Your task to perform on an android device: change notifications settings Image 0: 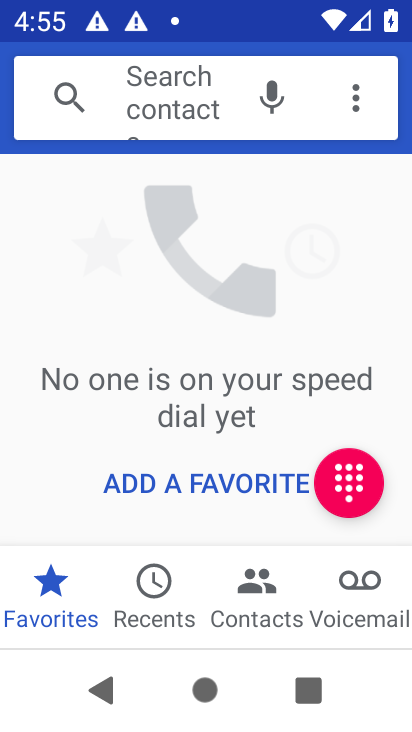
Step 0: press home button
Your task to perform on an android device: change notifications settings Image 1: 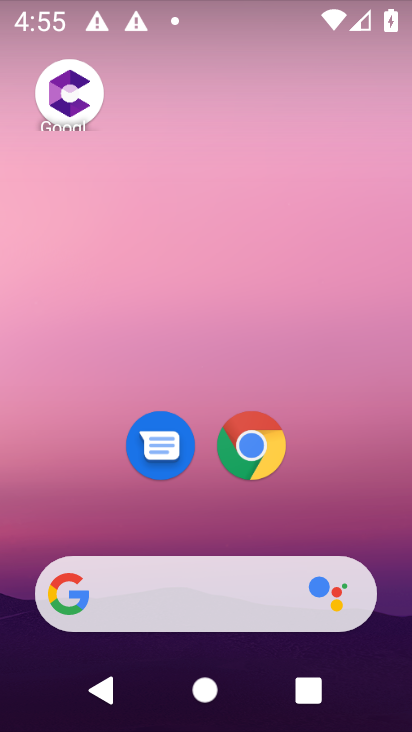
Step 1: drag from (208, 525) to (246, 86)
Your task to perform on an android device: change notifications settings Image 2: 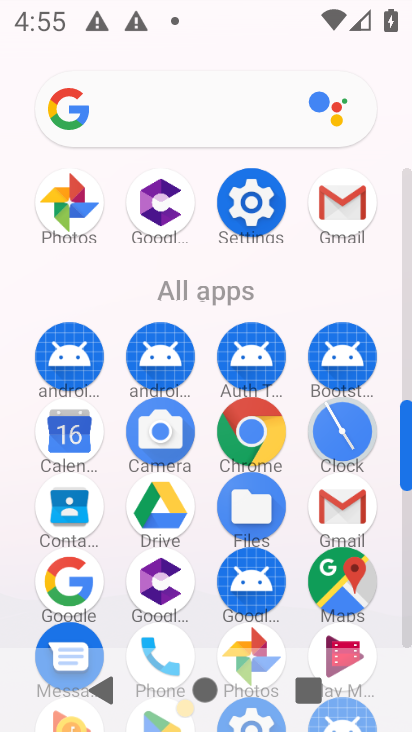
Step 2: click (247, 200)
Your task to perform on an android device: change notifications settings Image 3: 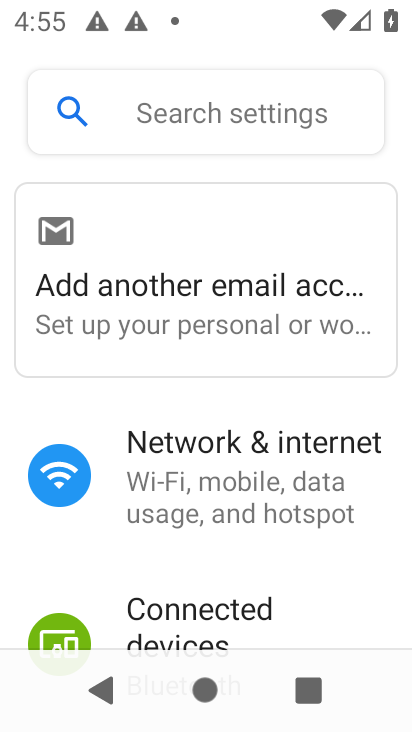
Step 3: drag from (292, 549) to (293, 79)
Your task to perform on an android device: change notifications settings Image 4: 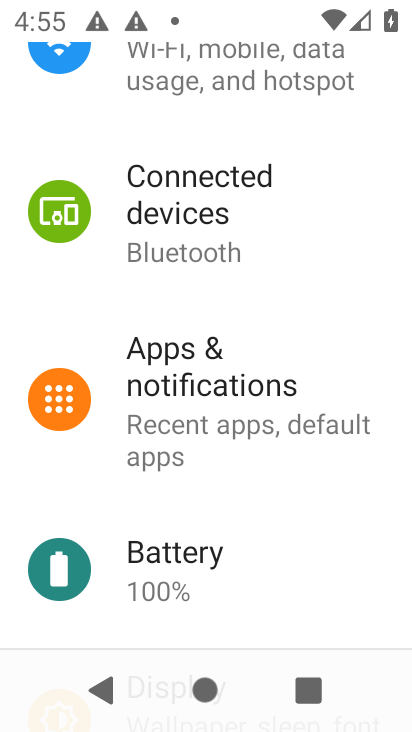
Step 4: click (194, 395)
Your task to perform on an android device: change notifications settings Image 5: 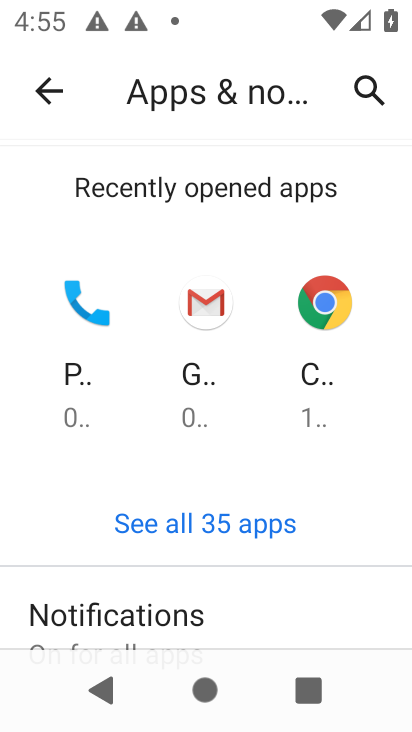
Step 5: drag from (276, 608) to (248, 306)
Your task to perform on an android device: change notifications settings Image 6: 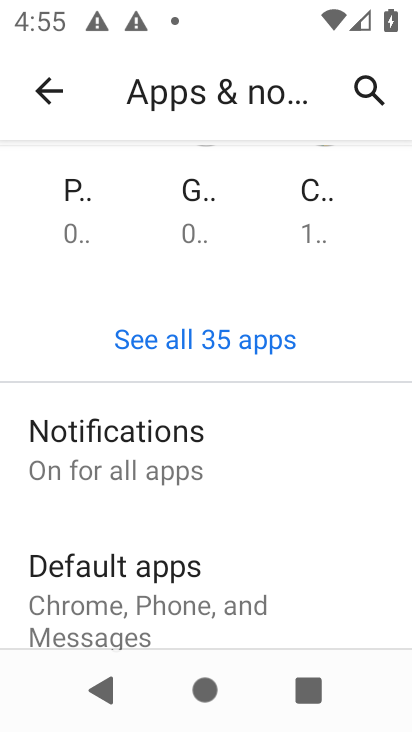
Step 6: click (167, 445)
Your task to perform on an android device: change notifications settings Image 7: 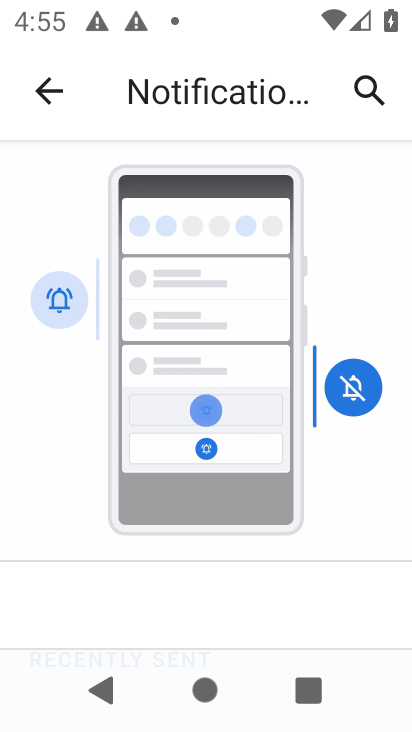
Step 7: drag from (259, 613) to (313, 243)
Your task to perform on an android device: change notifications settings Image 8: 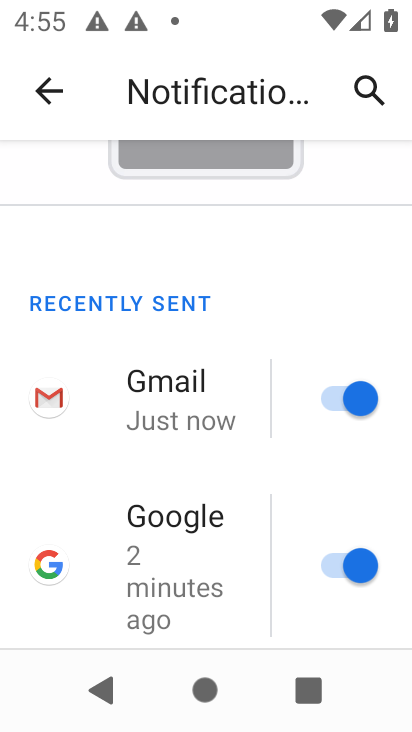
Step 8: drag from (235, 509) to (220, 253)
Your task to perform on an android device: change notifications settings Image 9: 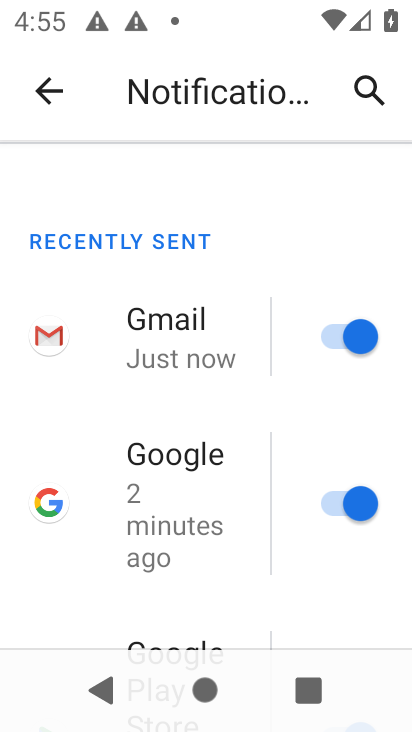
Step 9: drag from (191, 586) to (195, 87)
Your task to perform on an android device: change notifications settings Image 10: 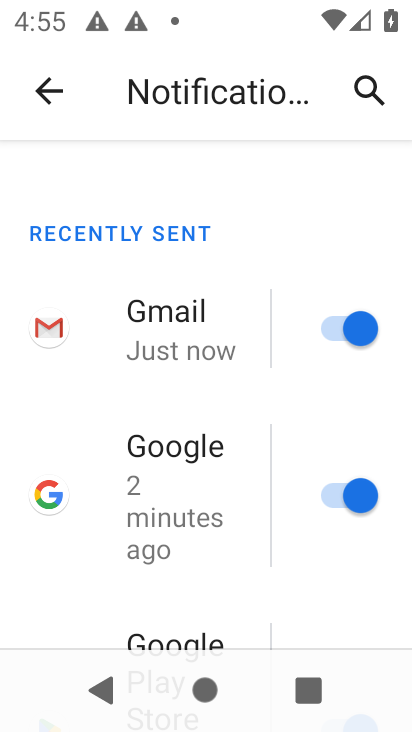
Step 10: drag from (303, 590) to (309, 263)
Your task to perform on an android device: change notifications settings Image 11: 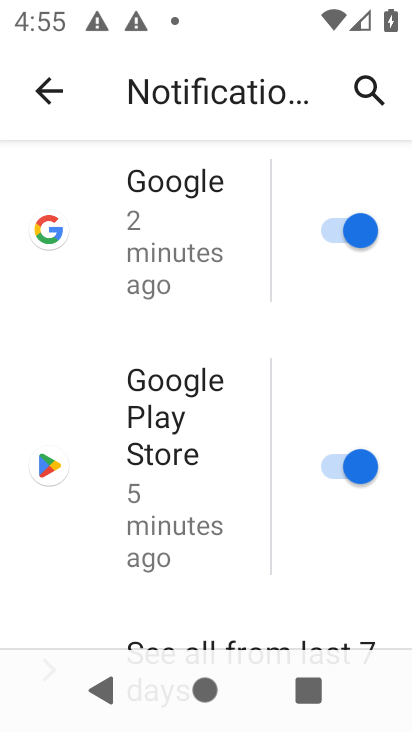
Step 11: drag from (271, 608) to (249, 158)
Your task to perform on an android device: change notifications settings Image 12: 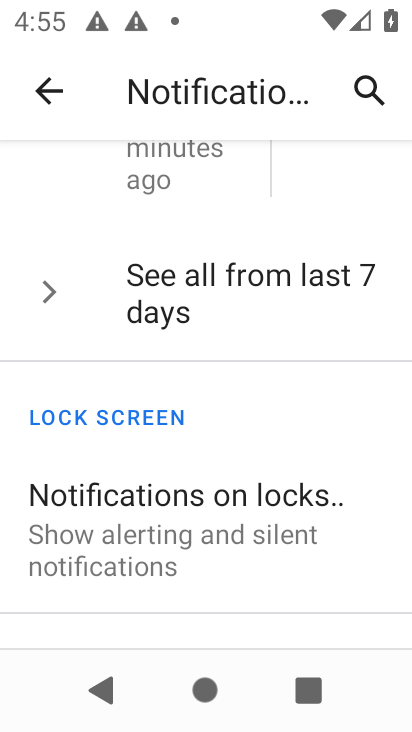
Step 12: click (164, 503)
Your task to perform on an android device: change notifications settings Image 13: 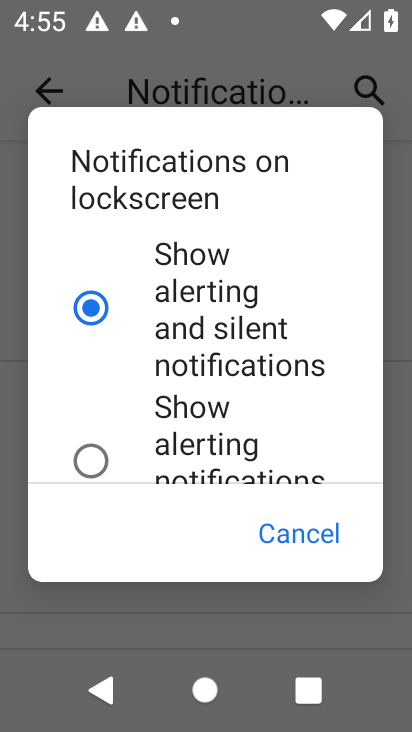
Step 13: click (89, 450)
Your task to perform on an android device: change notifications settings Image 14: 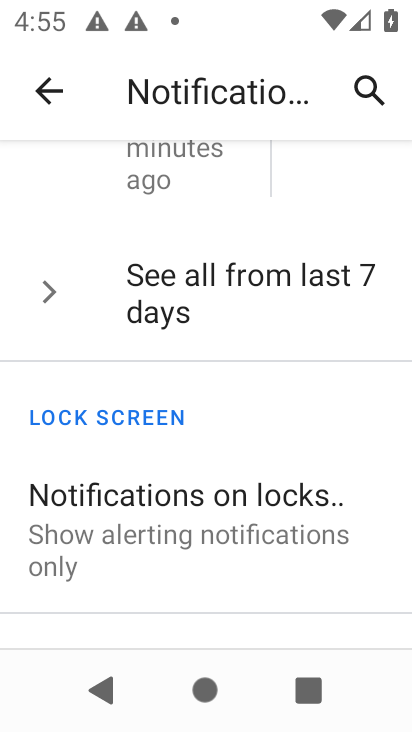
Step 14: task complete